Your task to perform on an android device: Open location settings Image 0: 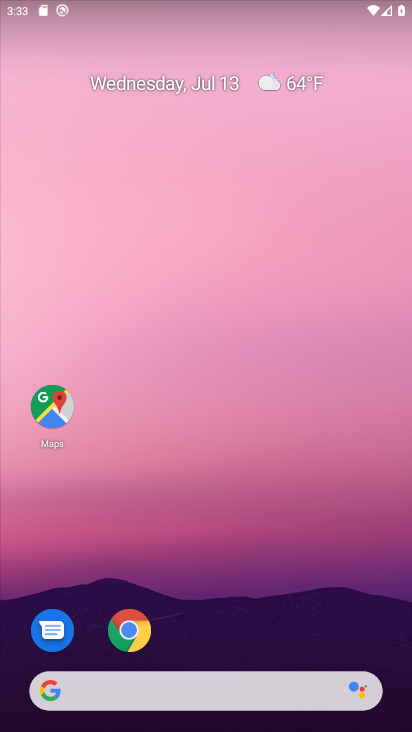
Step 0: drag from (222, 631) to (249, 100)
Your task to perform on an android device: Open location settings Image 1: 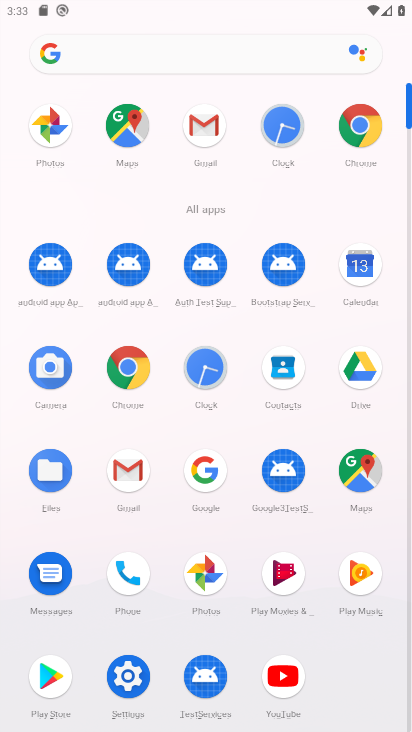
Step 1: click (127, 671)
Your task to perform on an android device: Open location settings Image 2: 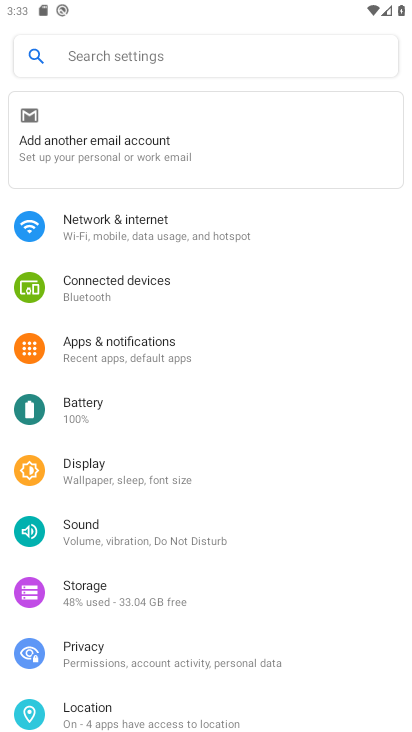
Step 2: click (74, 700)
Your task to perform on an android device: Open location settings Image 3: 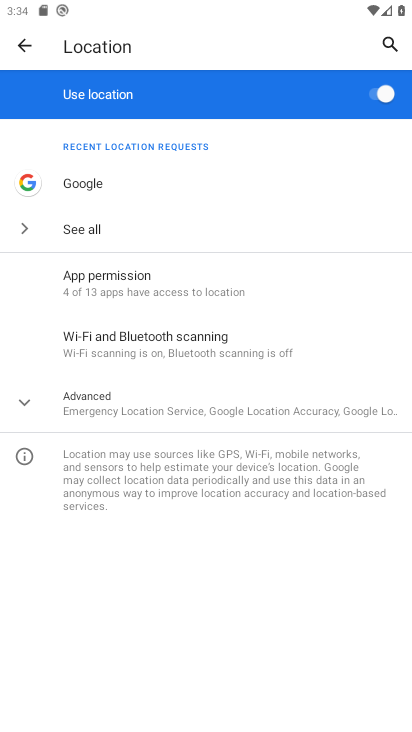
Step 3: click (125, 417)
Your task to perform on an android device: Open location settings Image 4: 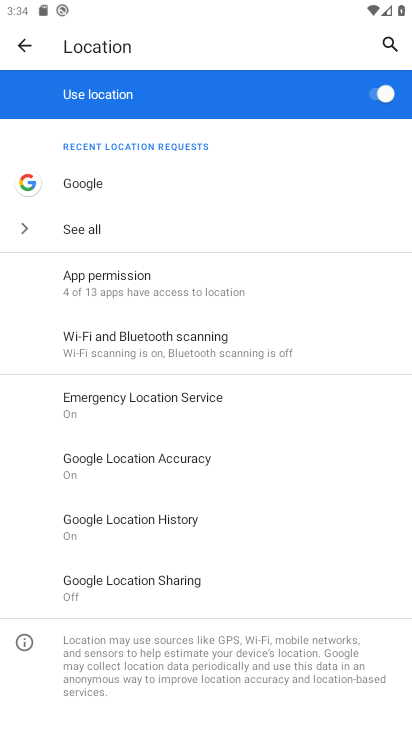
Step 4: task complete